Your task to perform on an android device: Check the news Image 0: 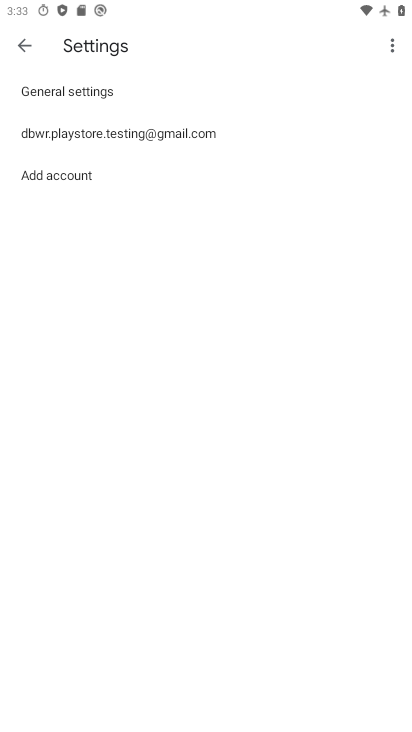
Step 0: press back button
Your task to perform on an android device: Check the news Image 1: 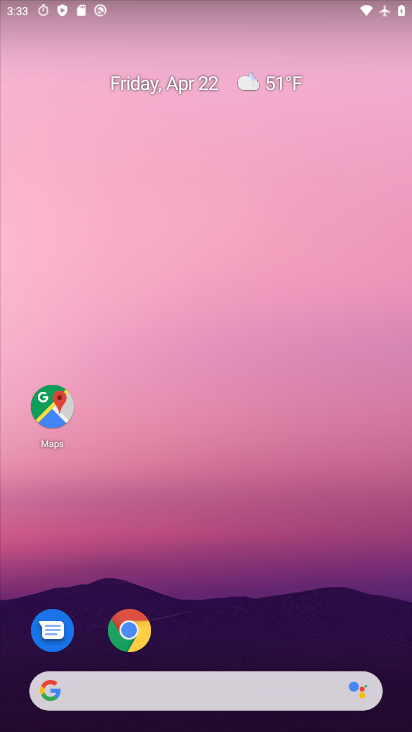
Step 1: click (156, 680)
Your task to perform on an android device: Check the news Image 2: 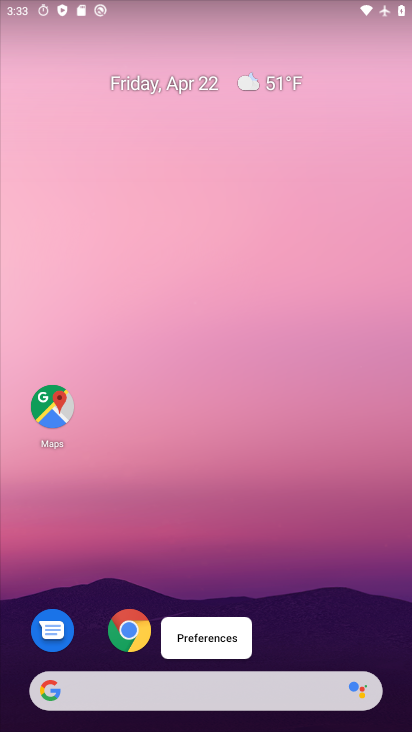
Step 2: click (136, 693)
Your task to perform on an android device: Check the news Image 3: 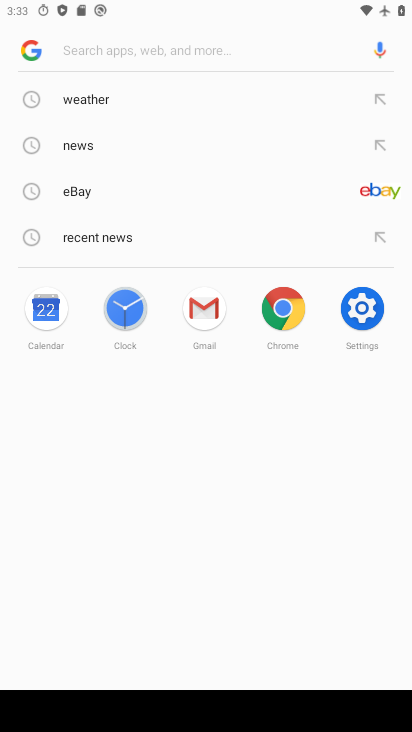
Step 3: click (93, 149)
Your task to perform on an android device: Check the news Image 4: 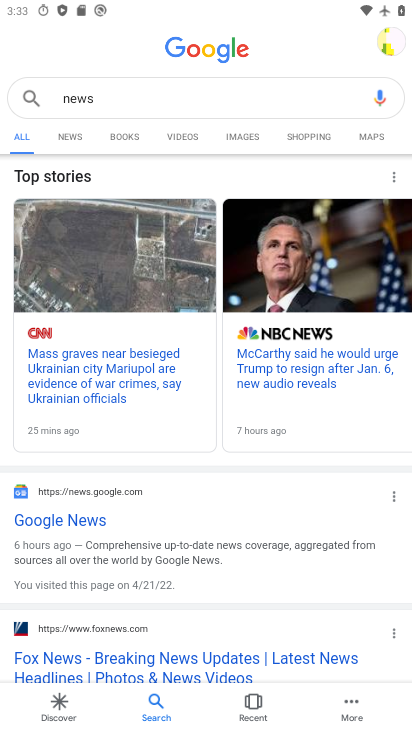
Step 4: task complete